Your task to perform on an android device: see creations saved in the google photos Image 0: 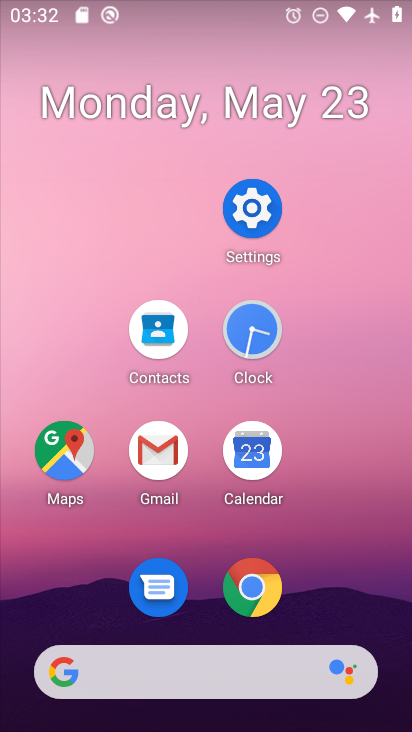
Step 0: drag from (370, 607) to (333, 376)
Your task to perform on an android device: see creations saved in the google photos Image 1: 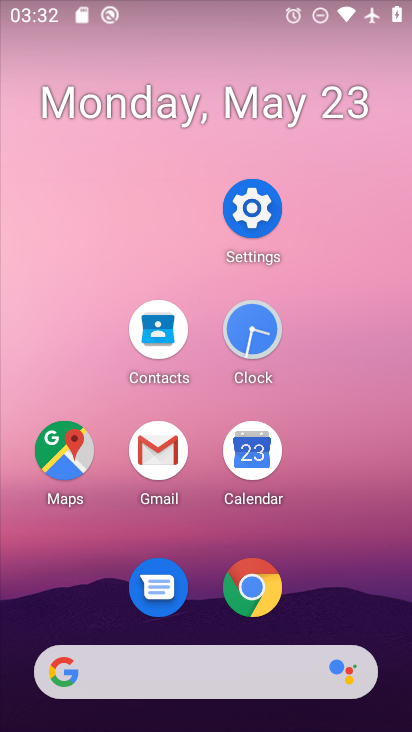
Step 1: drag from (334, 563) to (344, 244)
Your task to perform on an android device: see creations saved in the google photos Image 2: 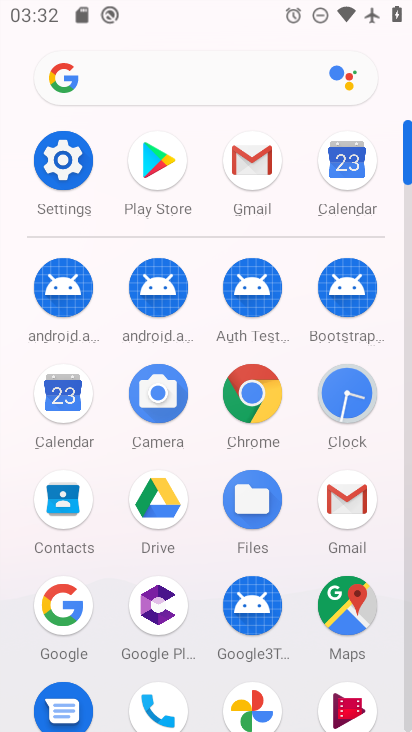
Step 2: click (250, 707)
Your task to perform on an android device: see creations saved in the google photos Image 3: 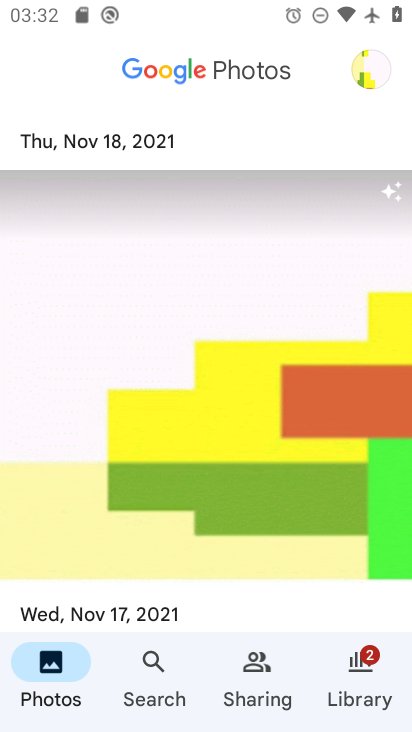
Step 3: click (344, 669)
Your task to perform on an android device: see creations saved in the google photos Image 4: 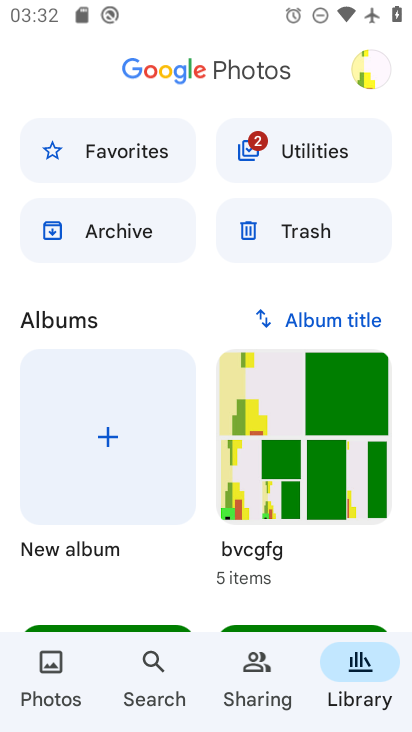
Step 4: click (158, 250)
Your task to perform on an android device: see creations saved in the google photos Image 5: 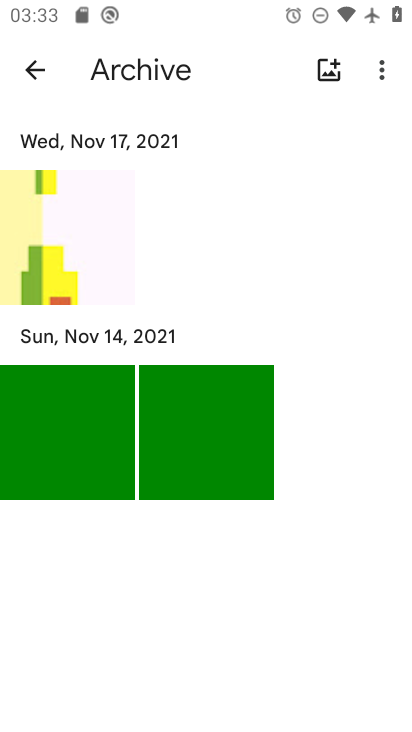
Step 5: task complete